Your task to perform on an android device: turn off picture-in-picture Image 0: 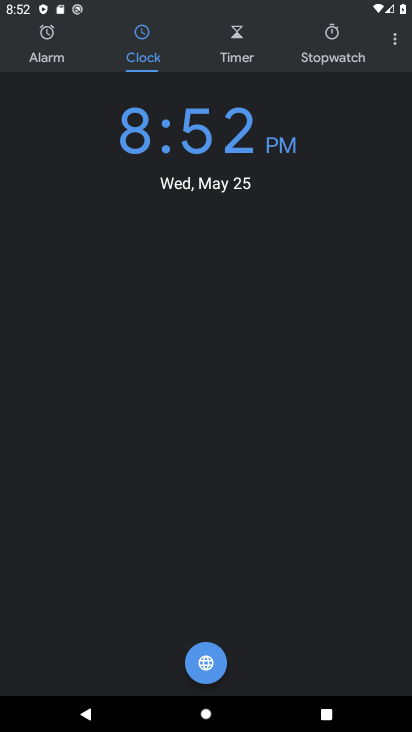
Step 0: press home button
Your task to perform on an android device: turn off picture-in-picture Image 1: 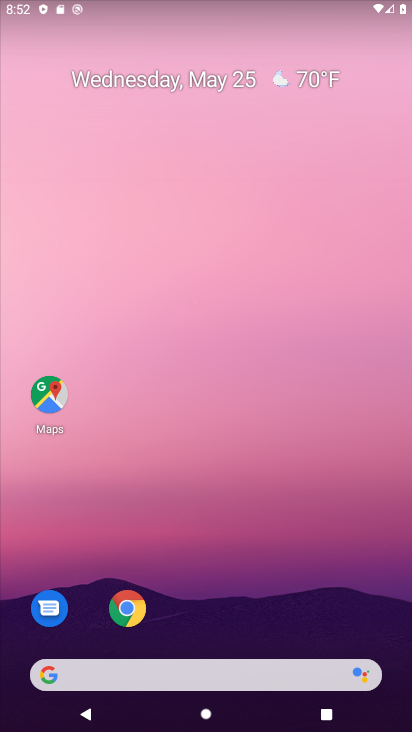
Step 1: drag from (280, 568) to (169, 13)
Your task to perform on an android device: turn off picture-in-picture Image 2: 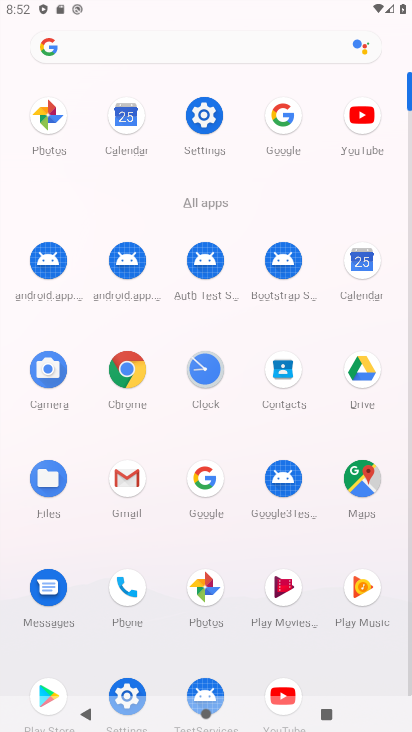
Step 2: click (201, 123)
Your task to perform on an android device: turn off picture-in-picture Image 3: 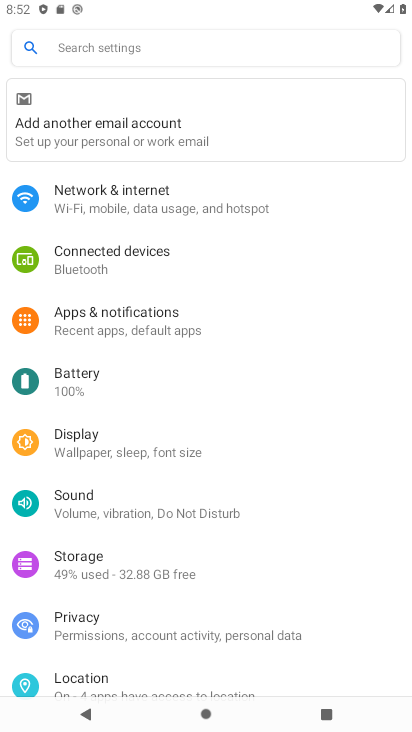
Step 3: click (138, 323)
Your task to perform on an android device: turn off picture-in-picture Image 4: 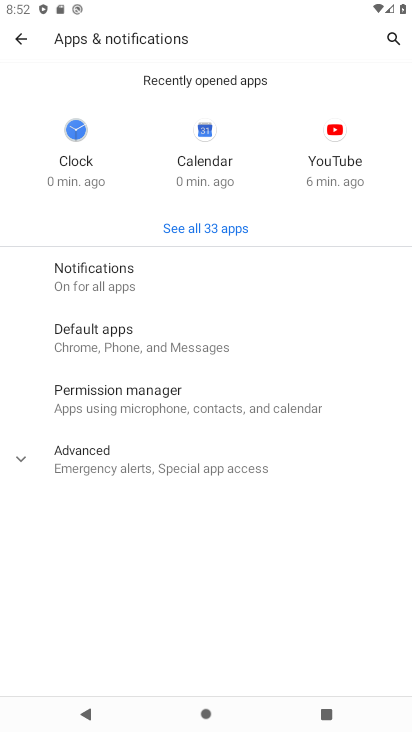
Step 4: click (160, 470)
Your task to perform on an android device: turn off picture-in-picture Image 5: 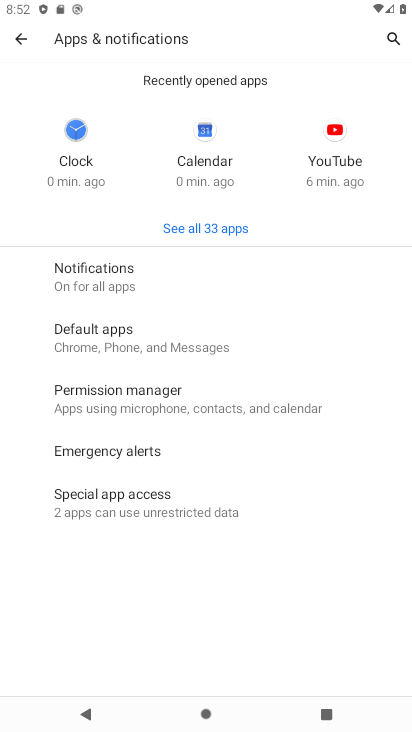
Step 5: click (172, 514)
Your task to perform on an android device: turn off picture-in-picture Image 6: 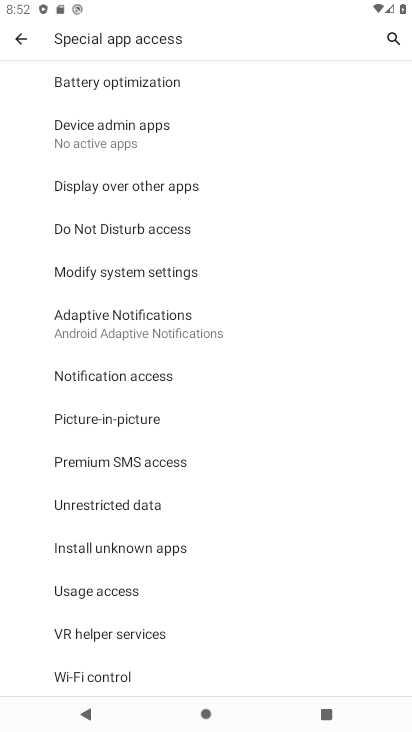
Step 6: click (140, 424)
Your task to perform on an android device: turn off picture-in-picture Image 7: 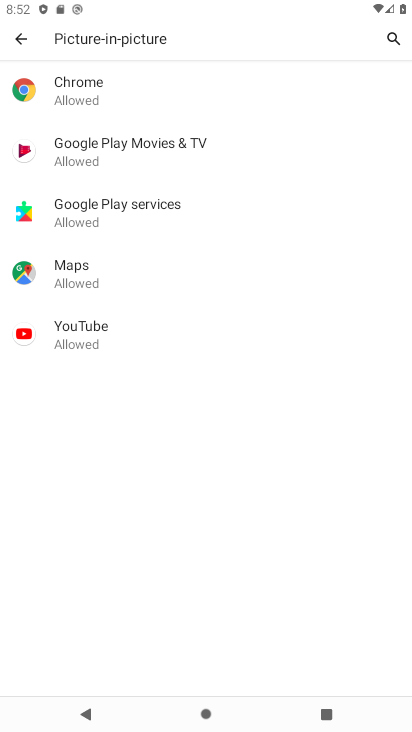
Step 7: click (155, 336)
Your task to perform on an android device: turn off picture-in-picture Image 8: 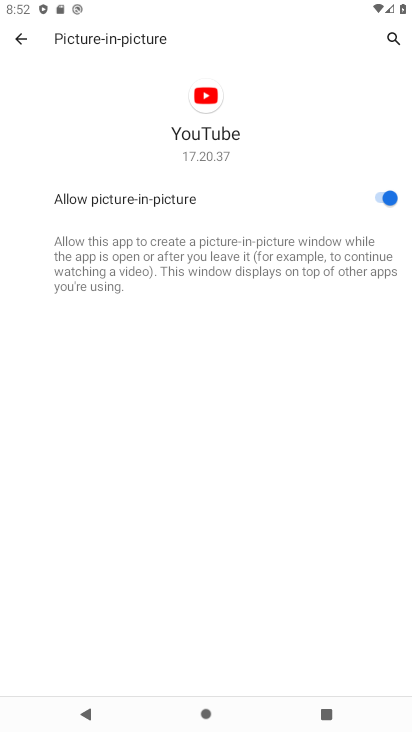
Step 8: click (375, 195)
Your task to perform on an android device: turn off picture-in-picture Image 9: 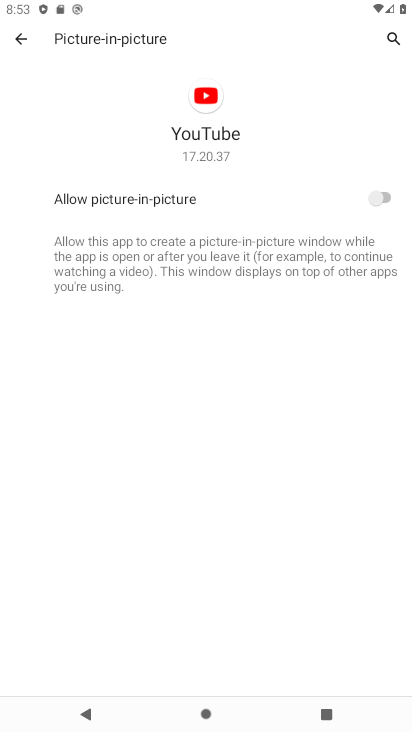
Step 9: task complete